Your task to perform on an android device: Open location settings Image 0: 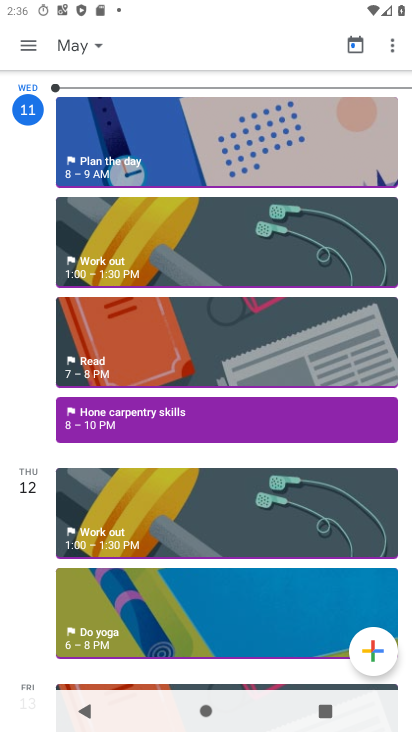
Step 0: press home button
Your task to perform on an android device: Open location settings Image 1: 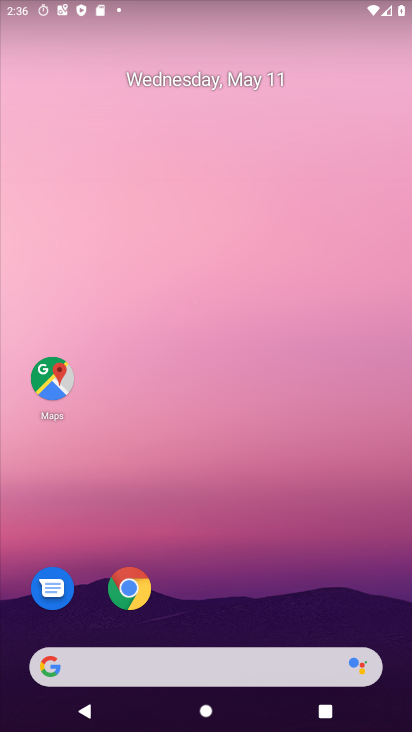
Step 1: drag from (308, 594) to (294, 10)
Your task to perform on an android device: Open location settings Image 2: 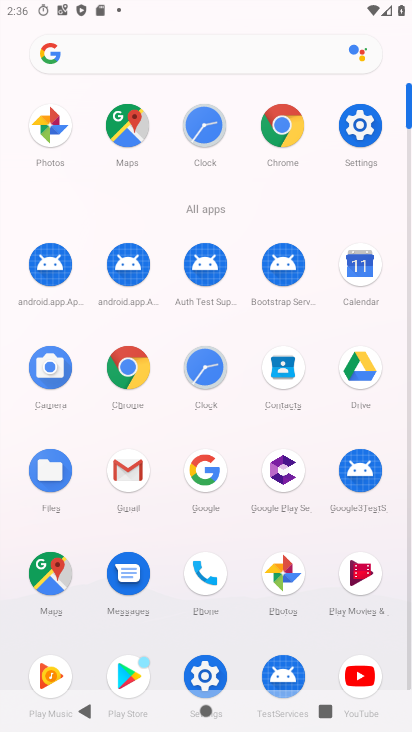
Step 2: click (209, 665)
Your task to perform on an android device: Open location settings Image 3: 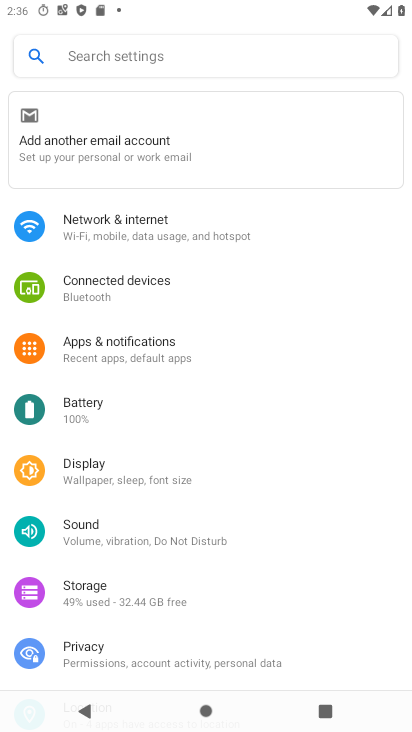
Step 3: drag from (206, 595) to (217, 271)
Your task to perform on an android device: Open location settings Image 4: 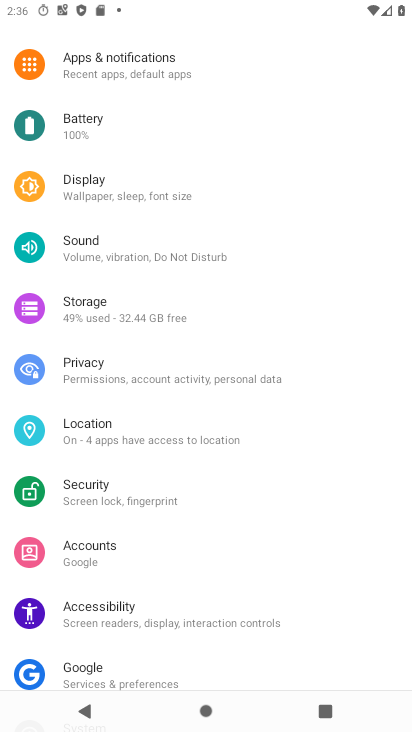
Step 4: click (102, 433)
Your task to perform on an android device: Open location settings Image 5: 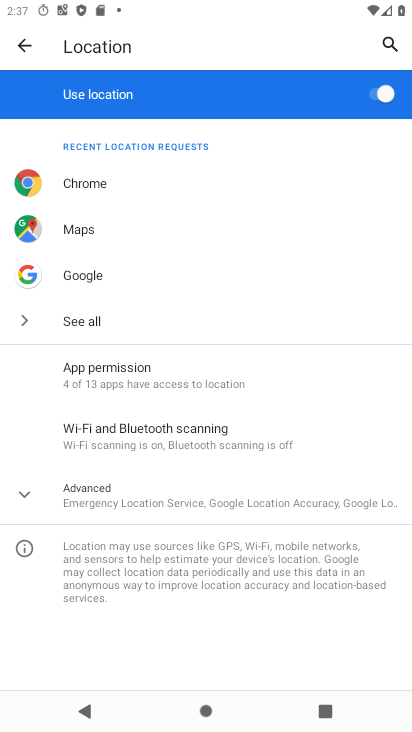
Step 5: task complete